Your task to perform on an android device: remove spam from my inbox in the gmail app Image 0: 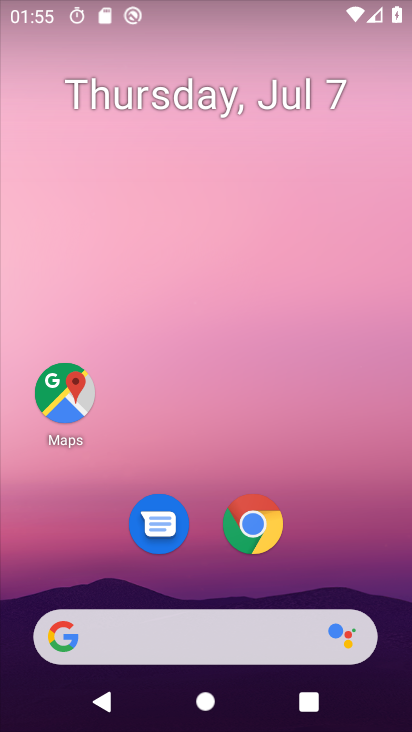
Step 0: drag from (187, 437) to (208, 7)
Your task to perform on an android device: remove spam from my inbox in the gmail app Image 1: 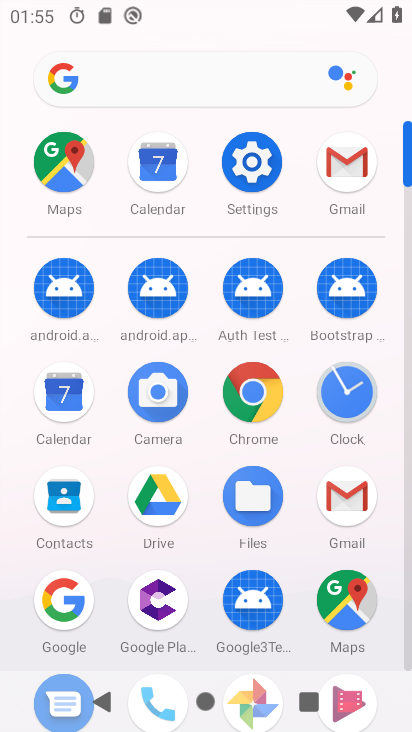
Step 1: click (356, 165)
Your task to perform on an android device: remove spam from my inbox in the gmail app Image 2: 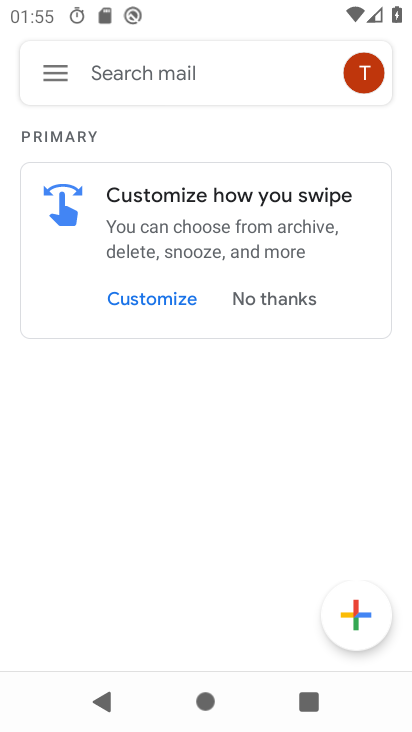
Step 2: click (60, 72)
Your task to perform on an android device: remove spam from my inbox in the gmail app Image 3: 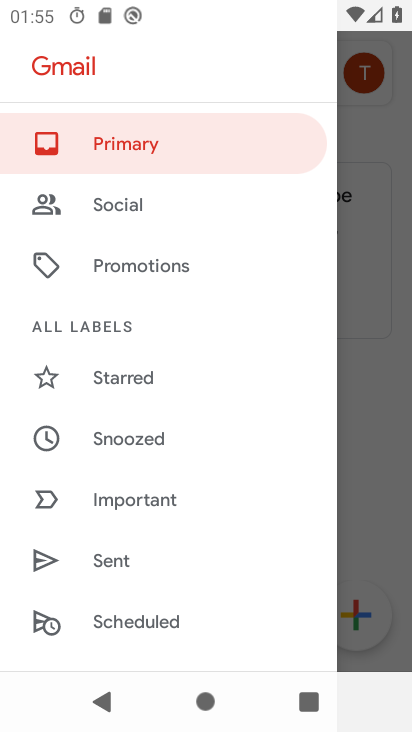
Step 3: drag from (159, 531) to (238, 0)
Your task to perform on an android device: remove spam from my inbox in the gmail app Image 4: 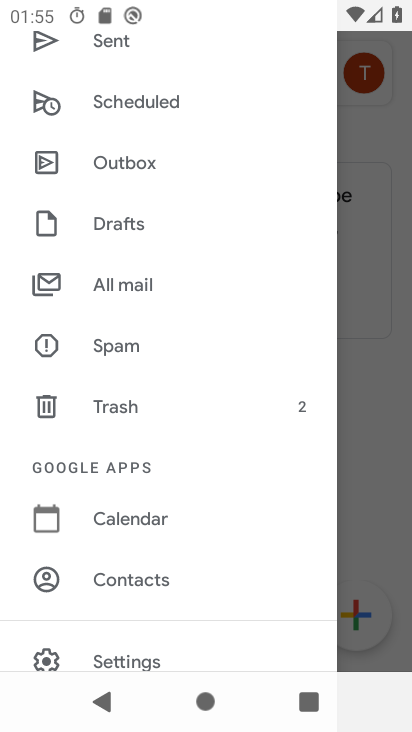
Step 4: click (137, 342)
Your task to perform on an android device: remove spam from my inbox in the gmail app Image 5: 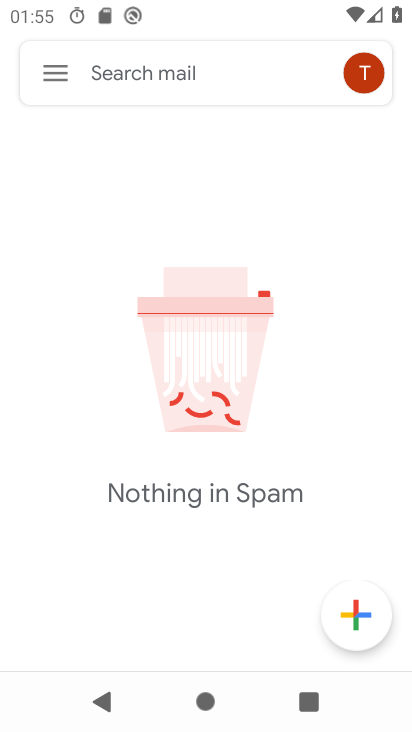
Step 5: task complete